Your task to perform on an android device: set the timer Image 0: 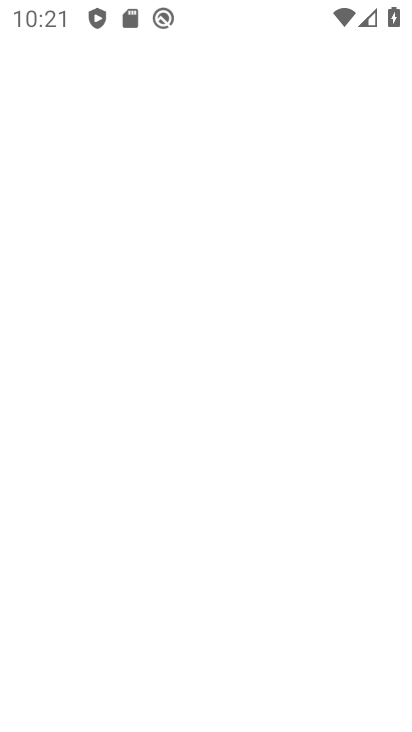
Step 0: press home button
Your task to perform on an android device: set the timer Image 1: 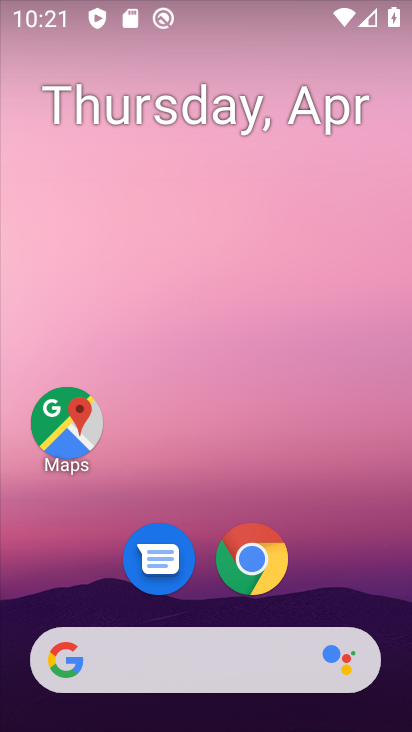
Step 1: drag from (250, 690) to (308, 240)
Your task to perform on an android device: set the timer Image 2: 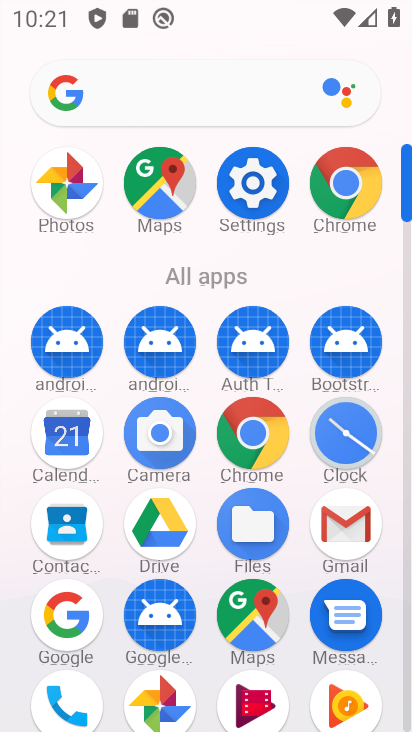
Step 2: click (347, 444)
Your task to perform on an android device: set the timer Image 3: 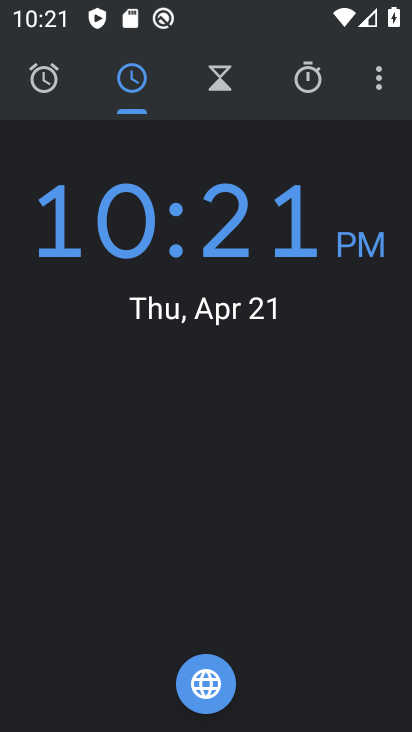
Step 3: click (229, 92)
Your task to perform on an android device: set the timer Image 4: 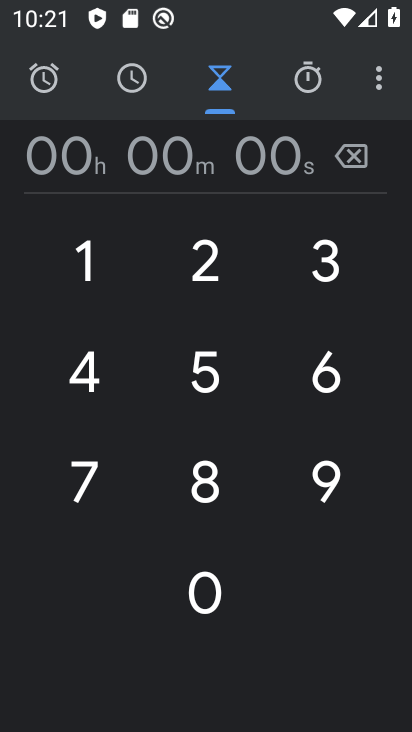
Step 4: click (206, 274)
Your task to perform on an android device: set the timer Image 5: 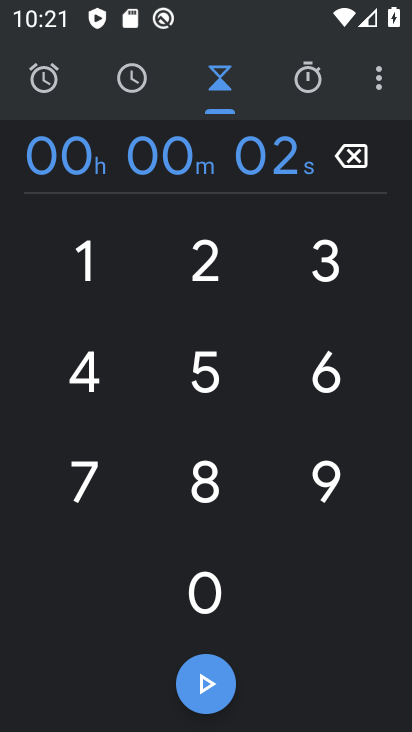
Step 5: click (200, 386)
Your task to perform on an android device: set the timer Image 6: 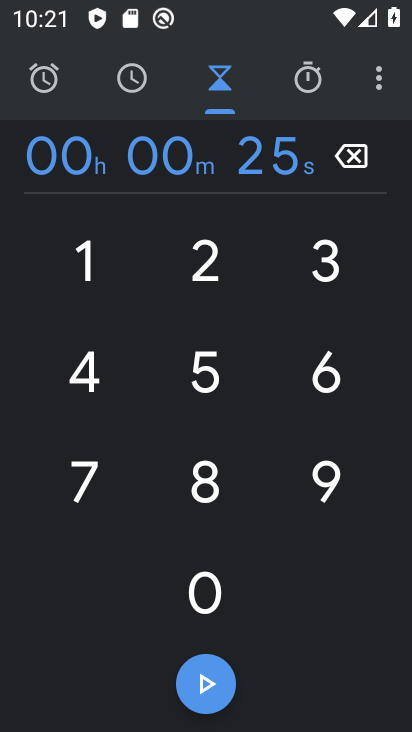
Step 6: click (103, 357)
Your task to perform on an android device: set the timer Image 7: 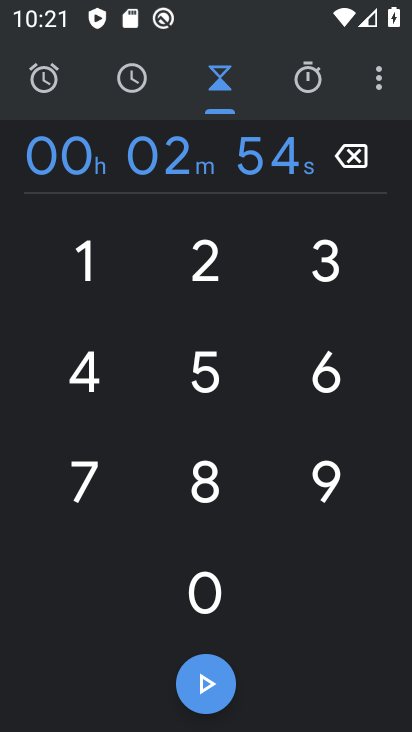
Step 7: click (156, 423)
Your task to perform on an android device: set the timer Image 8: 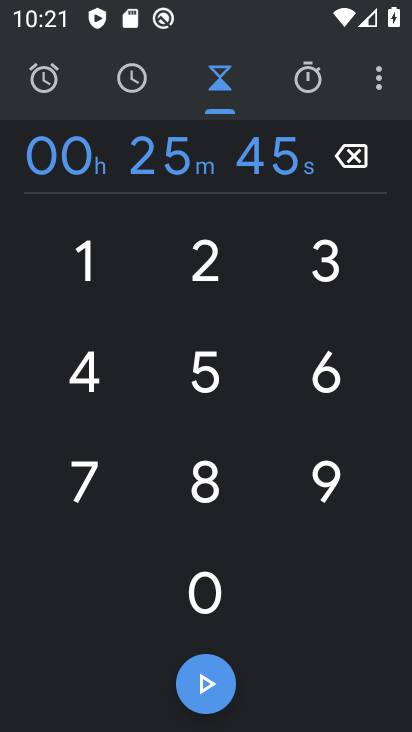
Step 8: click (223, 494)
Your task to perform on an android device: set the timer Image 9: 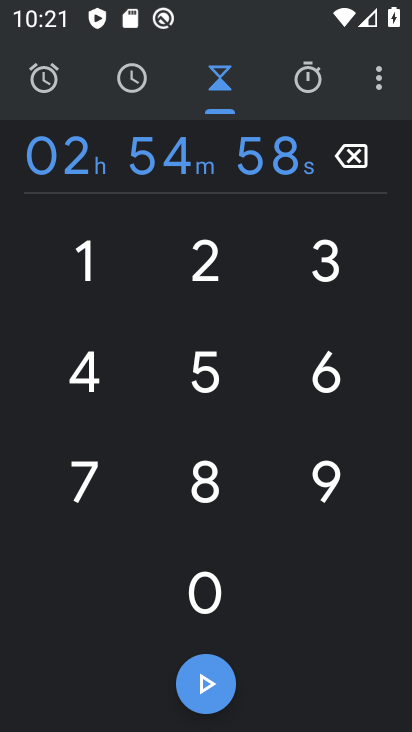
Step 9: click (211, 401)
Your task to perform on an android device: set the timer Image 10: 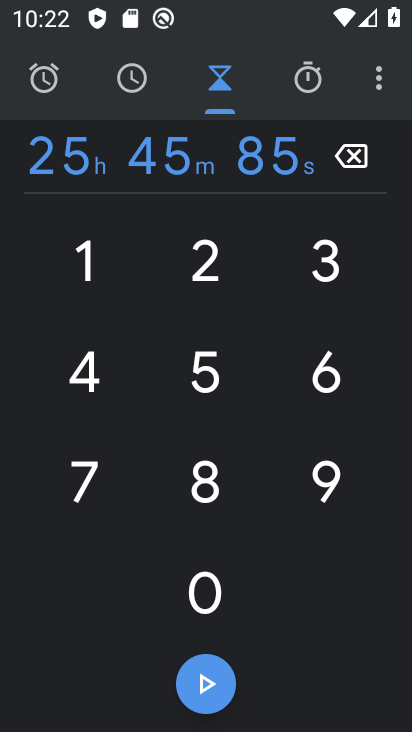
Step 10: task complete